Your task to perform on an android device: toggle pop-ups in chrome Image 0: 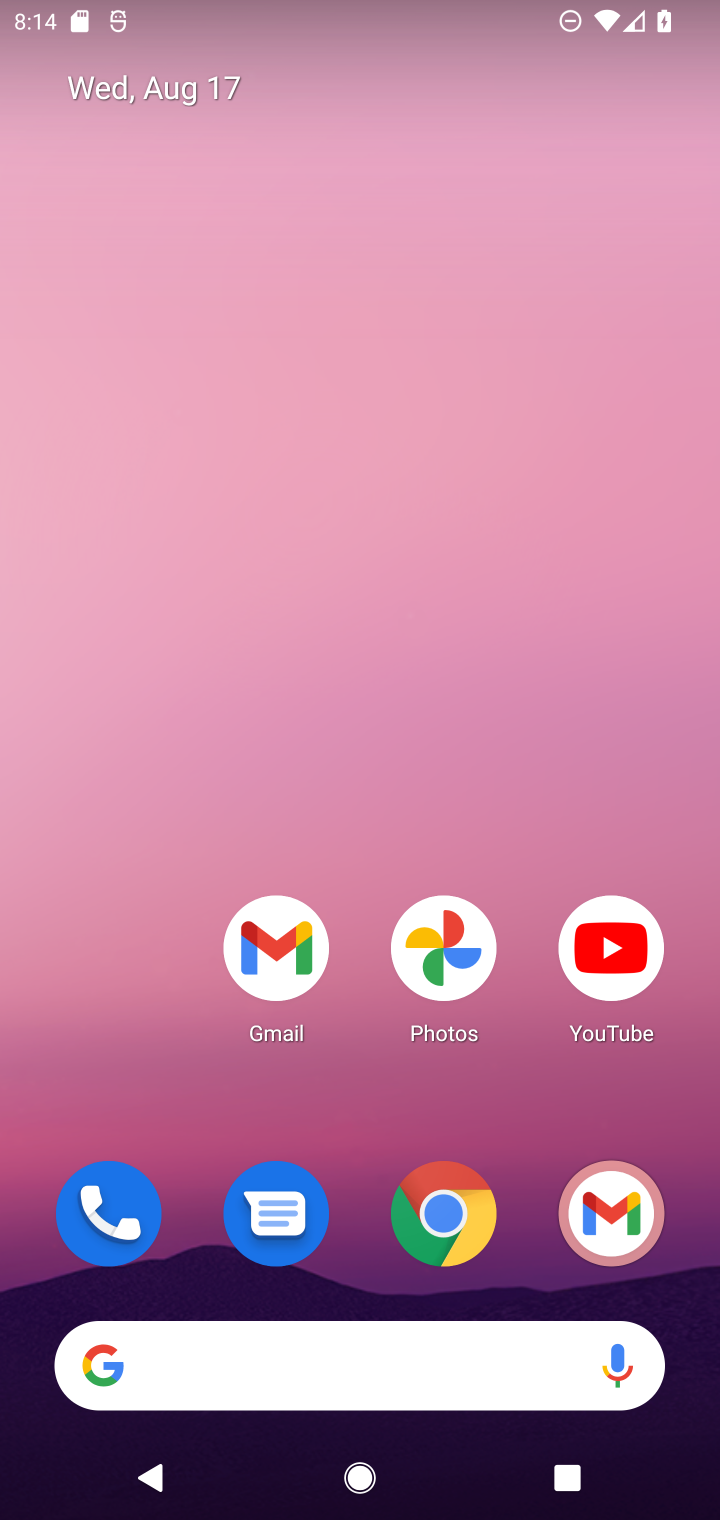
Step 0: click (430, 1235)
Your task to perform on an android device: toggle pop-ups in chrome Image 1: 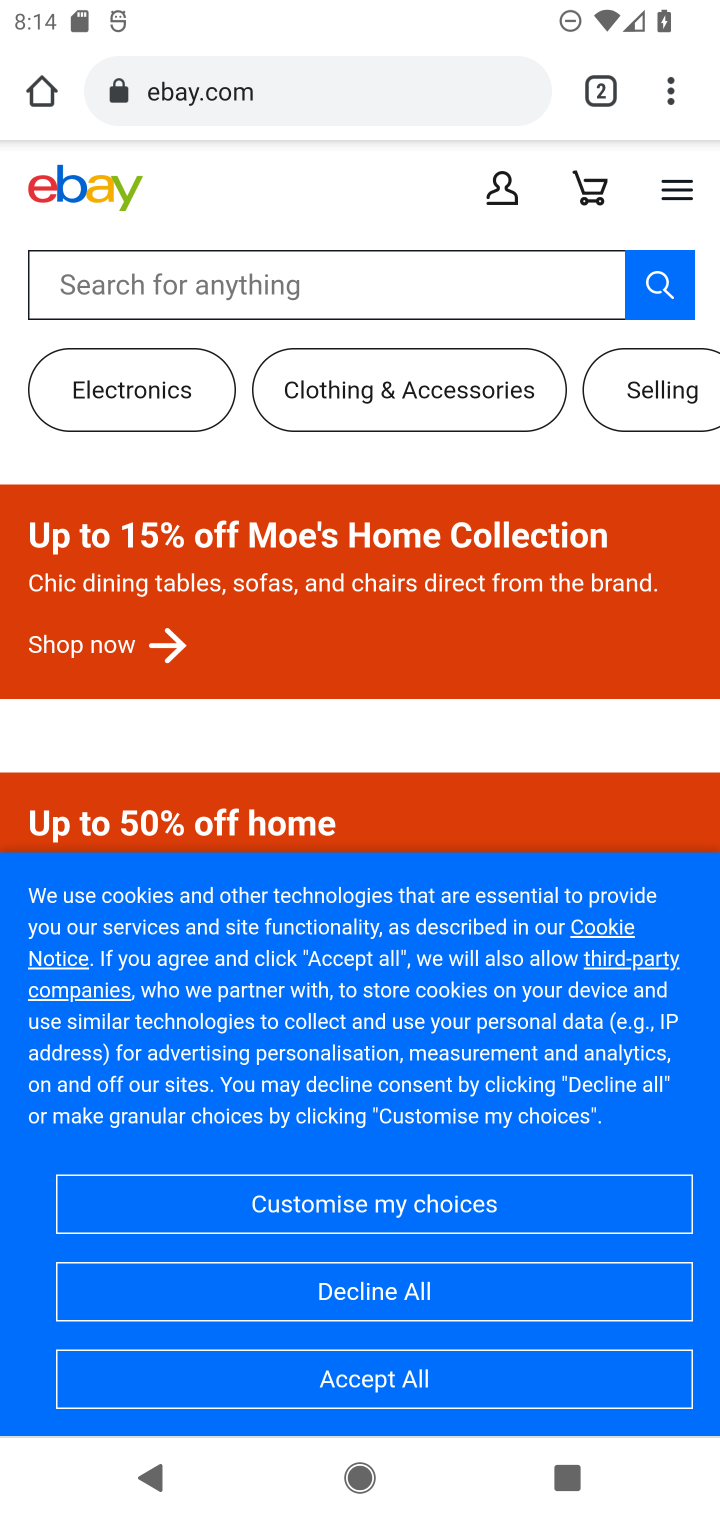
Step 1: click (660, 92)
Your task to perform on an android device: toggle pop-ups in chrome Image 2: 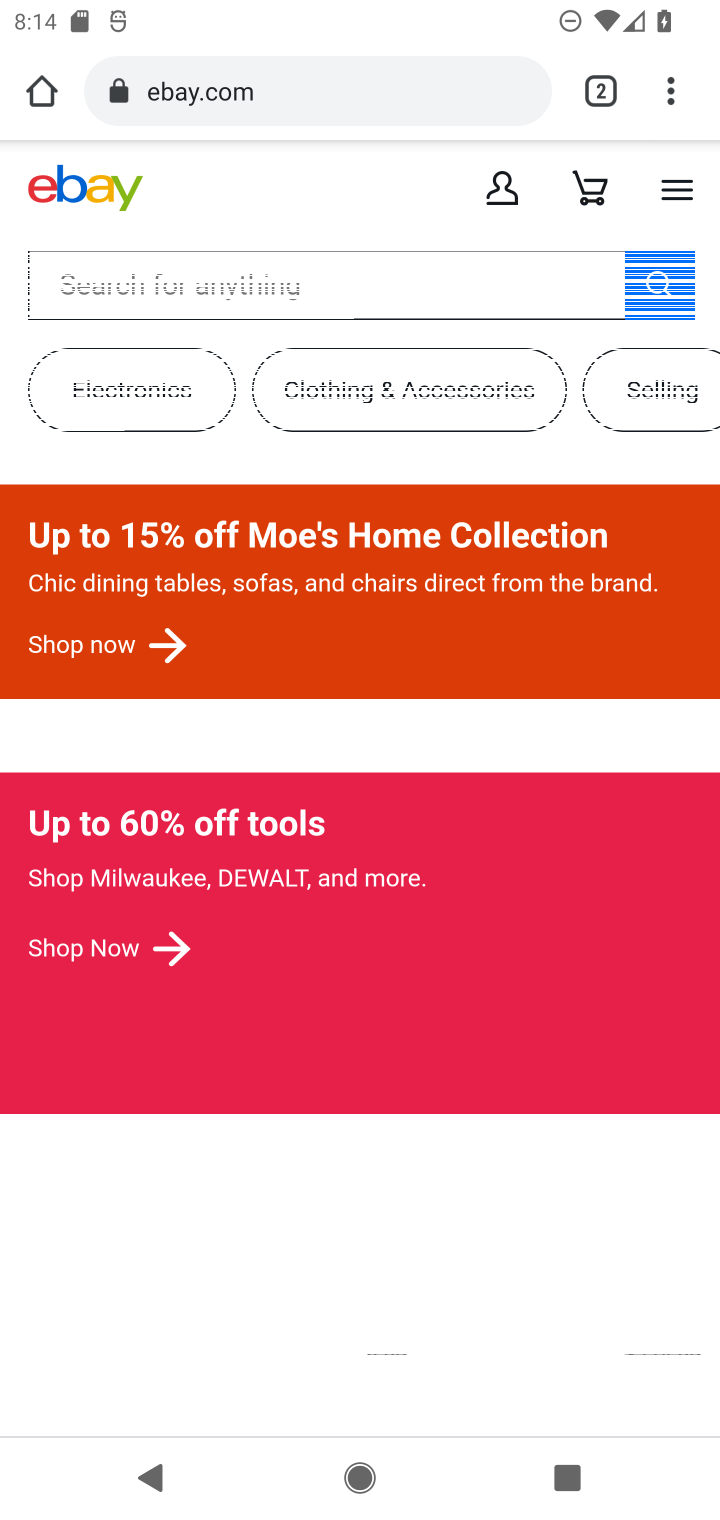
Step 2: click (691, 107)
Your task to perform on an android device: toggle pop-ups in chrome Image 3: 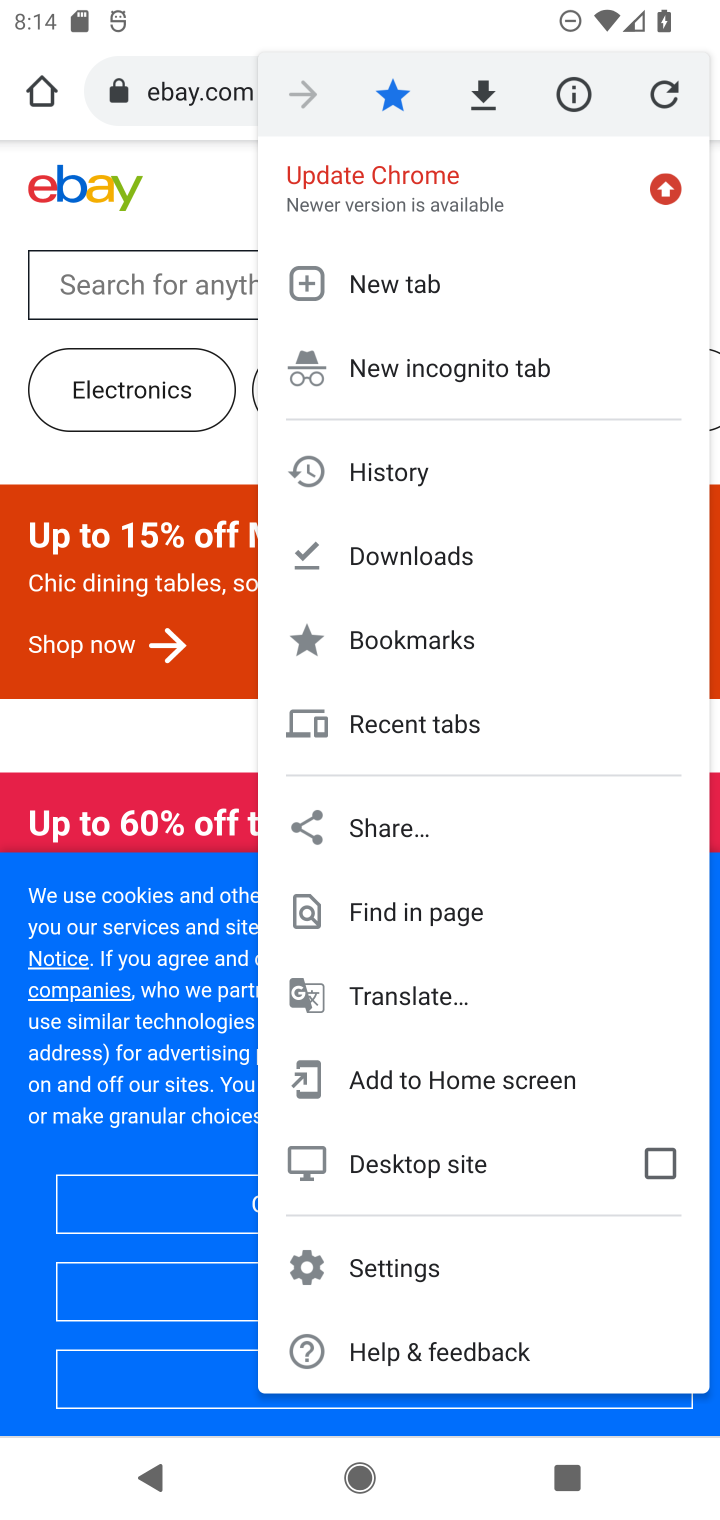
Step 3: click (443, 1276)
Your task to perform on an android device: toggle pop-ups in chrome Image 4: 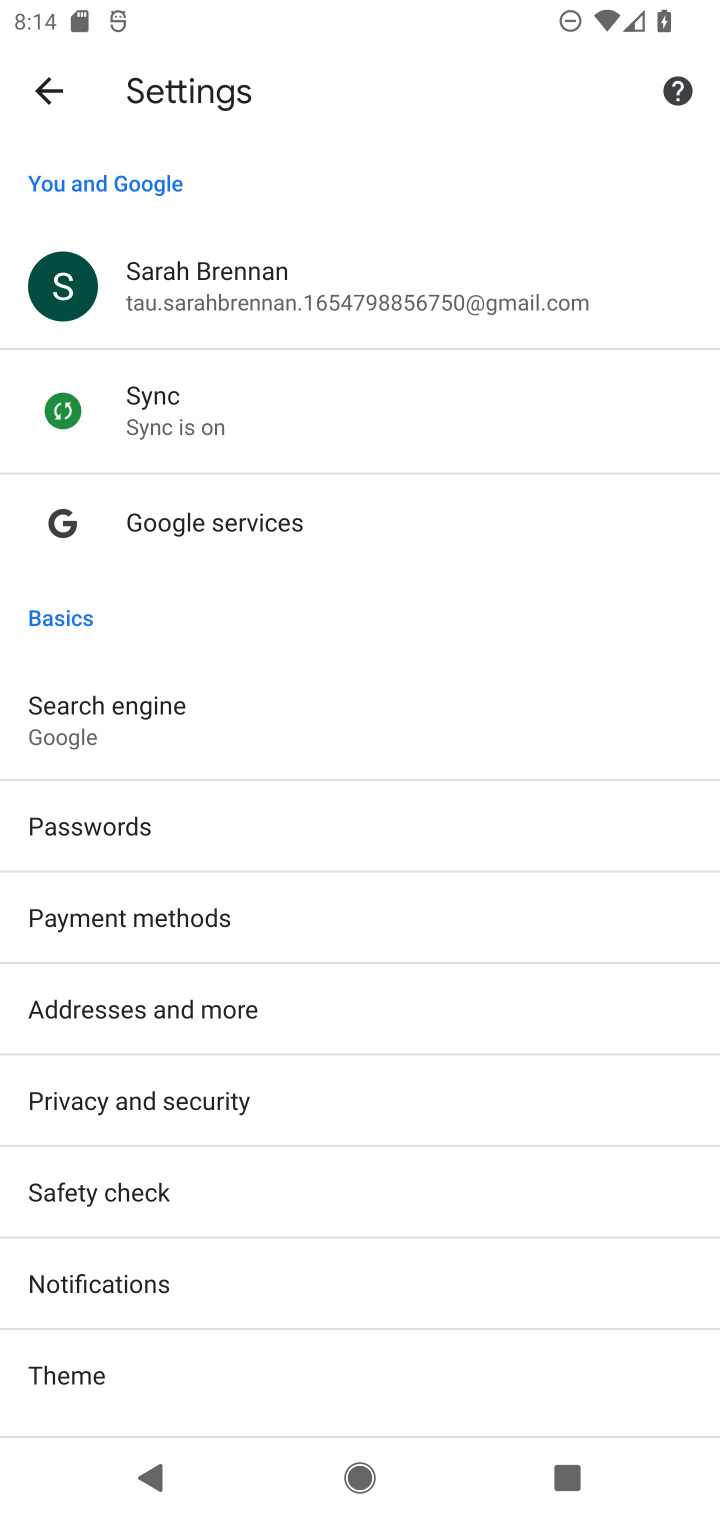
Step 4: drag from (194, 1347) to (246, 673)
Your task to perform on an android device: toggle pop-ups in chrome Image 5: 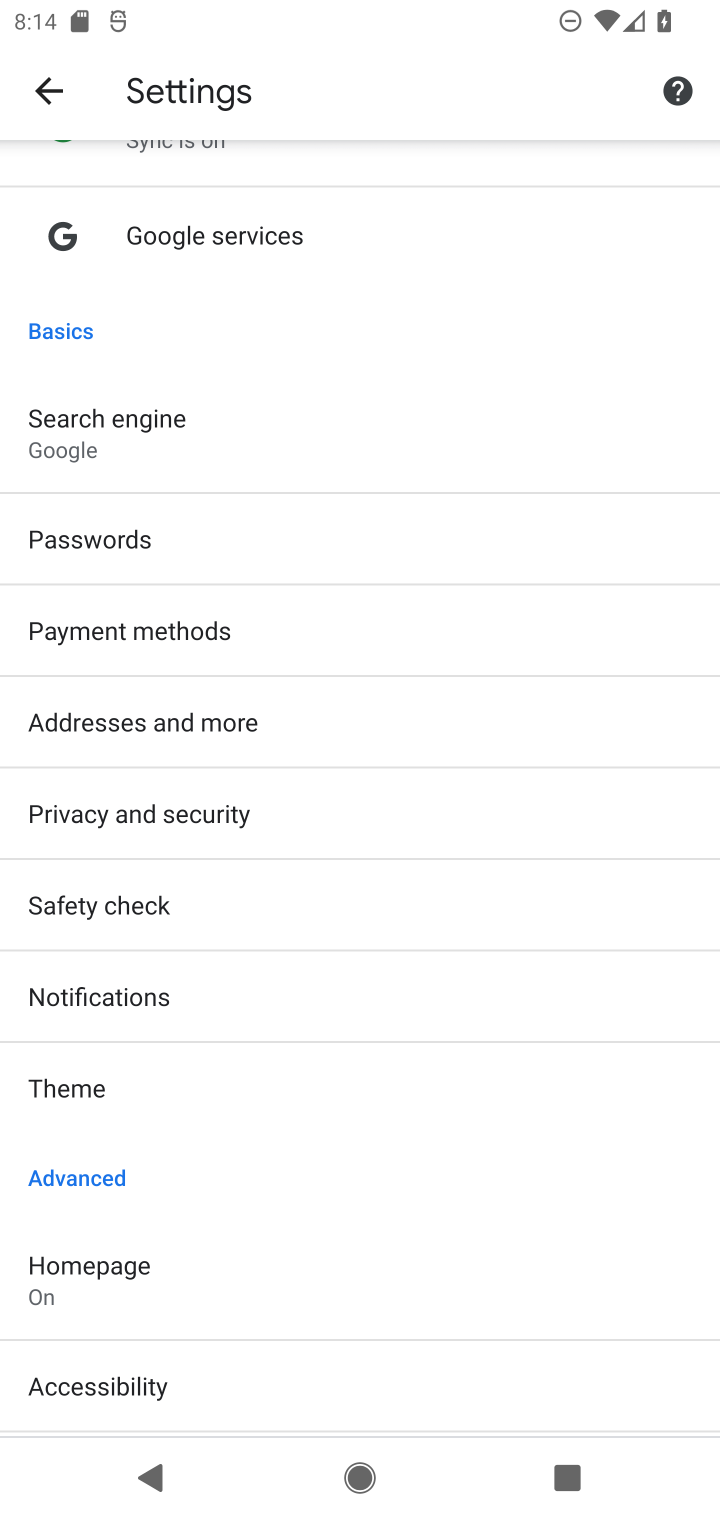
Step 5: drag from (322, 1290) to (474, 399)
Your task to perform on an android device: toggle pop-ups in chrome Image 6: 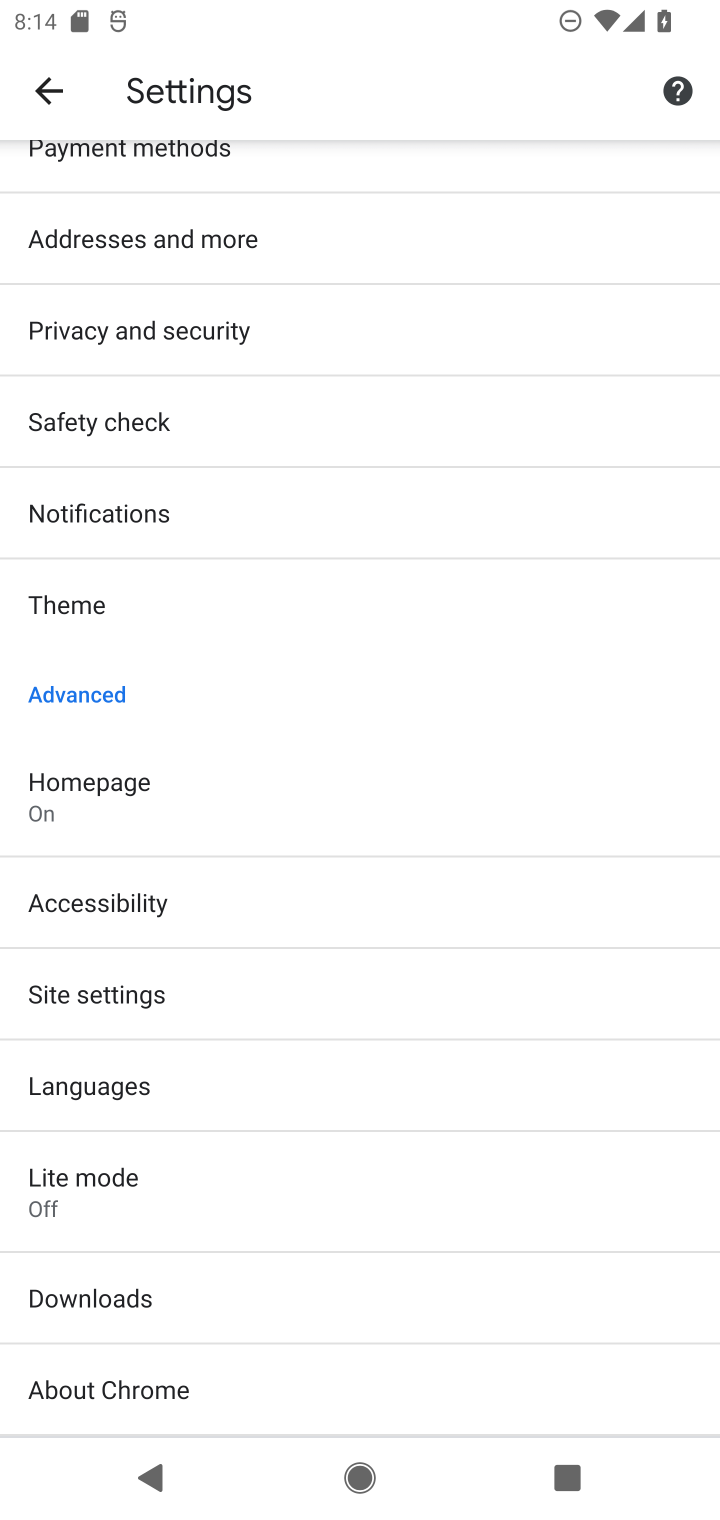
Step 6: click (405, 1009)
Your task to perform on an android device: toggle pop-ups in chrome Image 7: 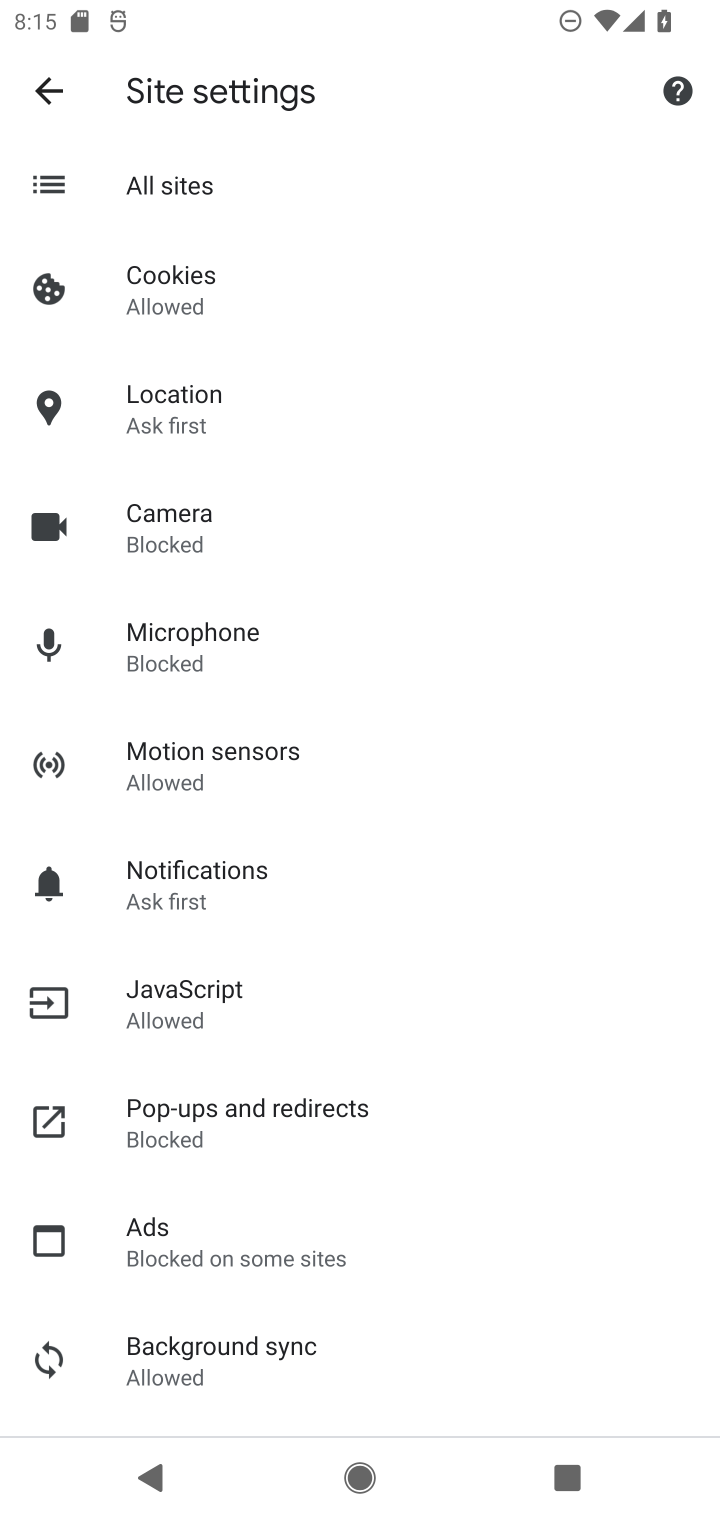
Step 7: click (329, 1145)
Your task to perform on an android device: toggle pop-ups in chrome Image 8: 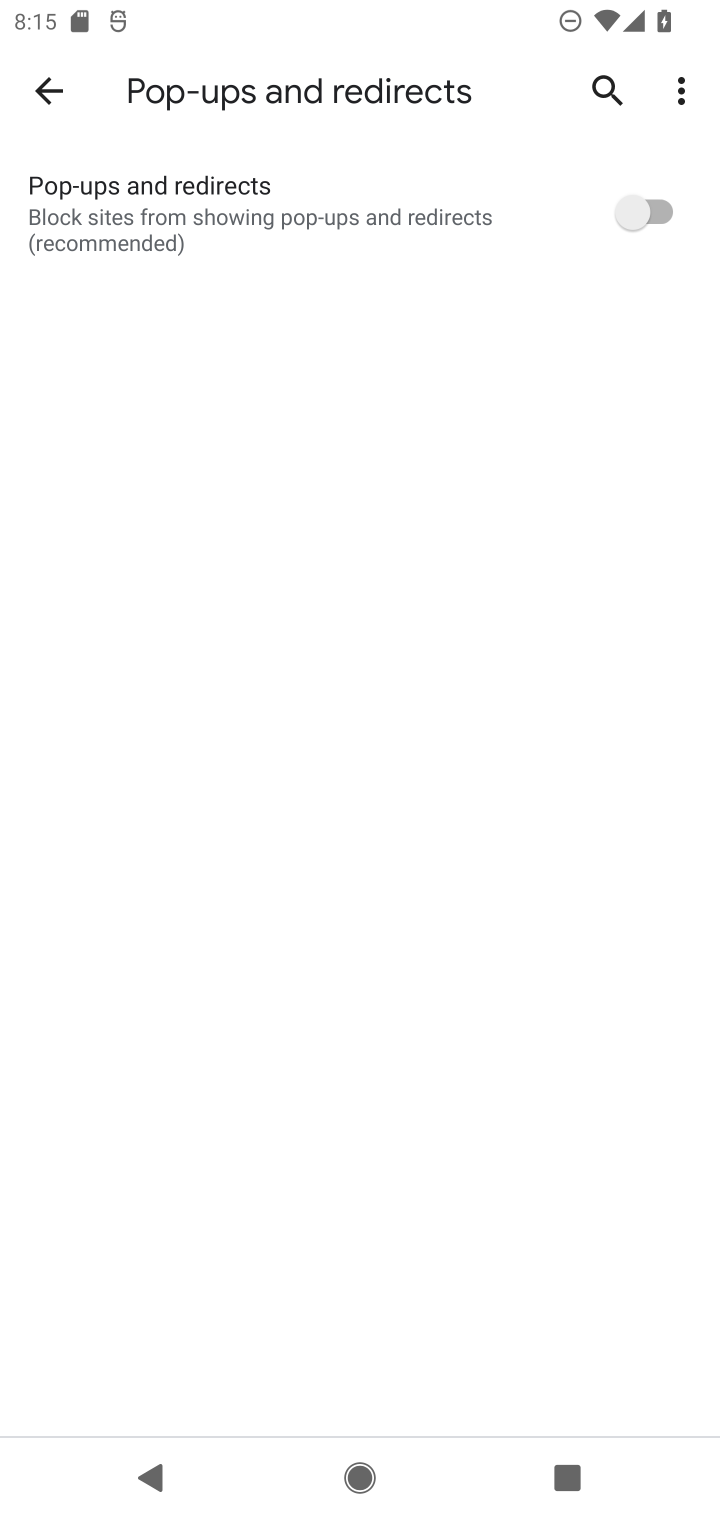
Step 8: click (637, 200)
Your task to perform on an android device: toggle pop-ups in chrome Image 9: 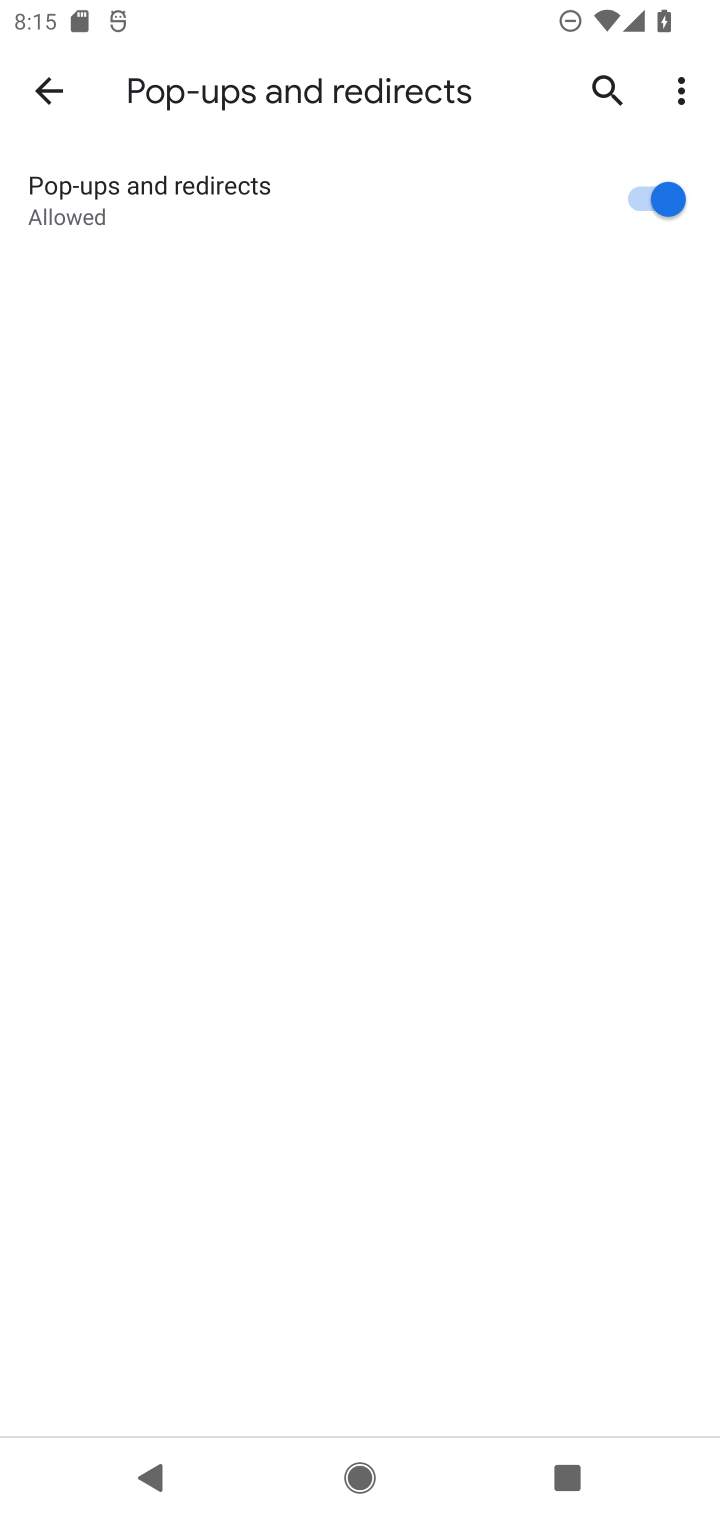
Step 9: task complete